Your task to perform on an android device: Is it going to rain this weekend? Image 0: 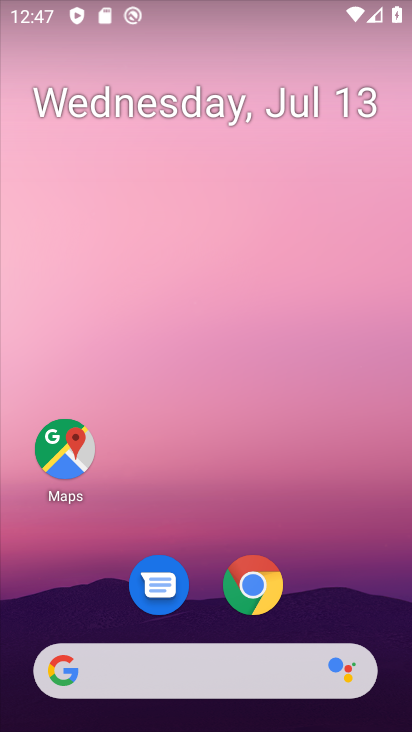
Step 0: press home button
Your task to perform on an android device: Is it going to rain this weekend? Image 1: 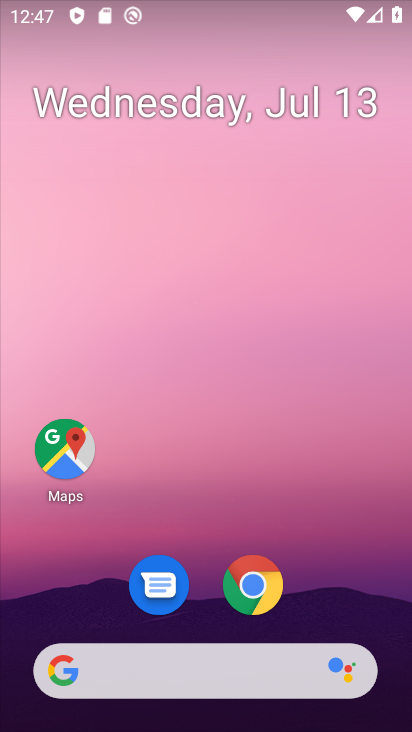
Step 1: drag from (313, 569) to (311, 96)
Your task to perform on an android device: Is it going to rain this weekend? Image 2: 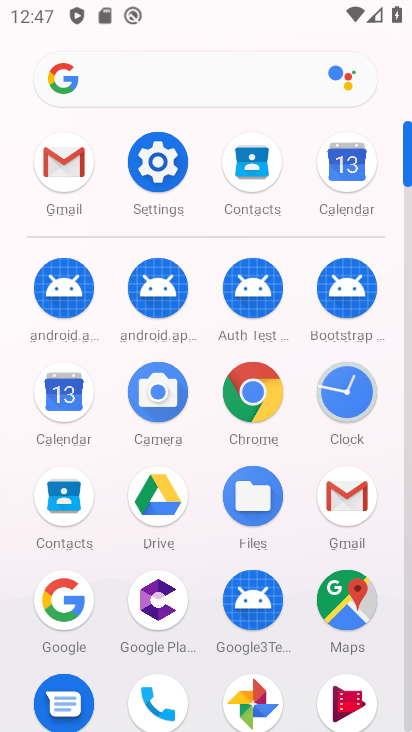
Step 2: click (216, 78)
Your task to perform on an android device: Is it going to rain this weekend? Image 3: 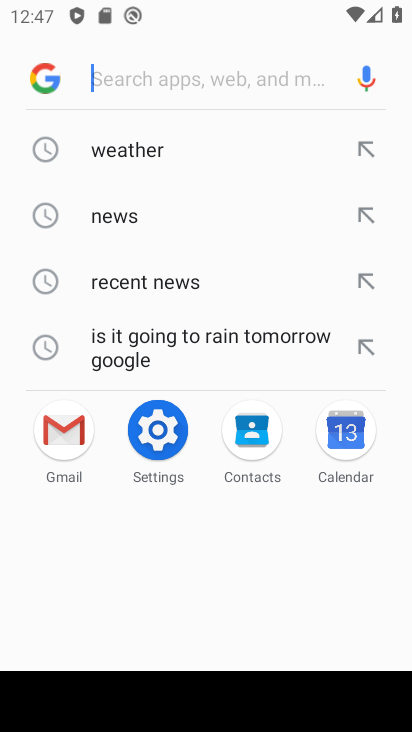
Step 3: click (47, 145)
Your task to perform on an android device: Is it going to rain this weekend? Image 4: 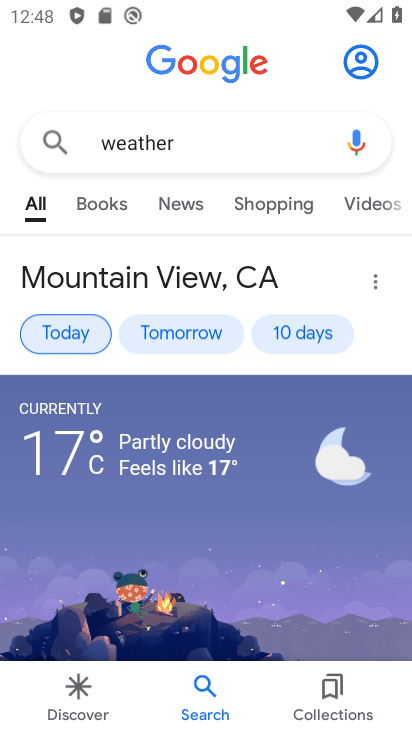
Step 4: click (73, 331)
Your task to perform on an android device: Is it going to rain this weekend? Image 5: 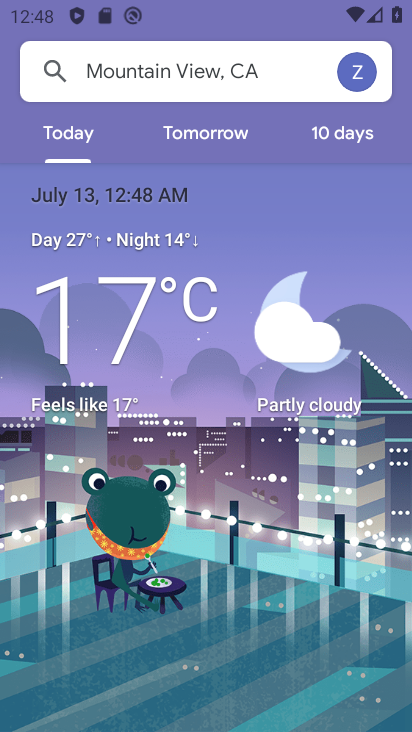
Step 5: click (355, 120)
Your task to perform on an android device: Is it going to rain this weekend? Image 6: 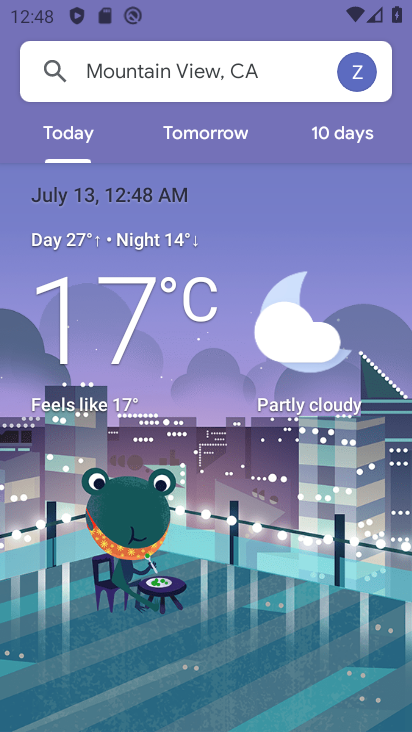
Step 6: click (355, 142)
Your task to perform on an android device: Is it going to rain this weekend? Image 7: 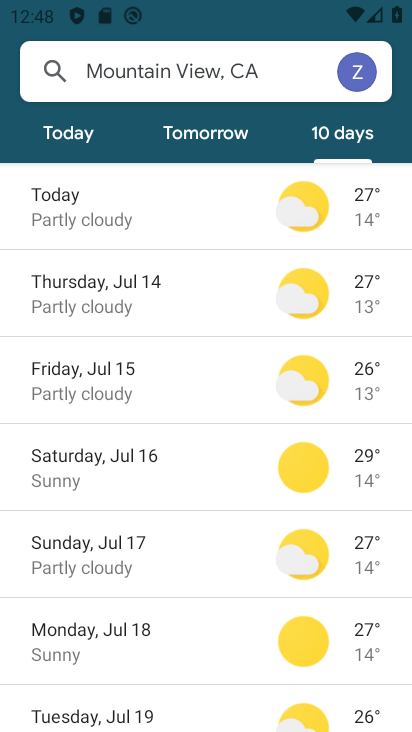
Step 7: click (165, 463)
Your task to perform on an android device: Is it going to rain this weekend? Image 8: 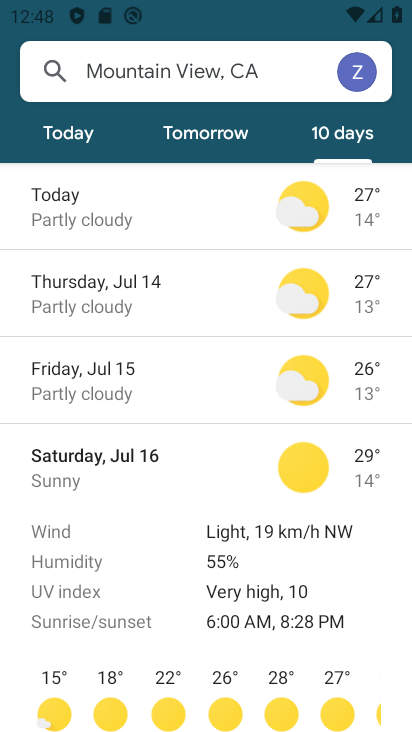
Step 8: task complete